Your task to perform on an android device: Go to sound settings Image 0: 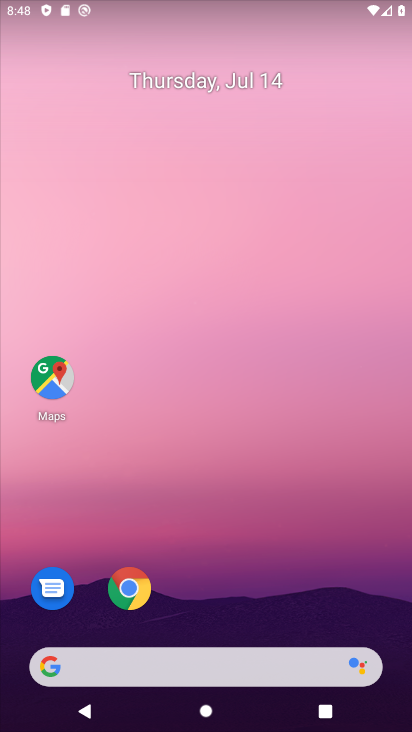
Step 0: drag from (269, 600) to (232, 40)
Your task to perform on an android device: Go to sound settings Image 1: 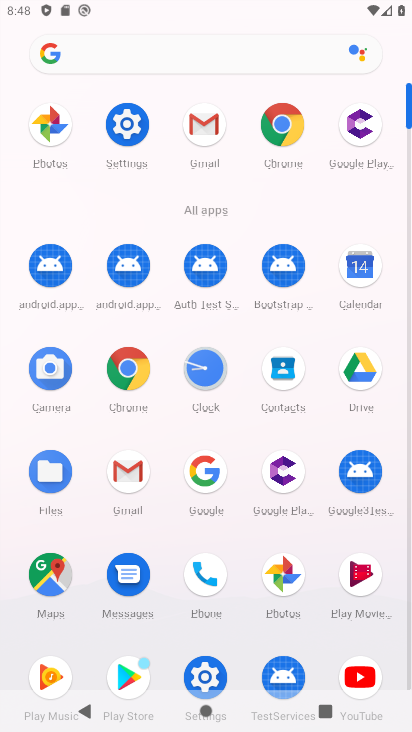
Step 1: click (128, 124)
Your task to perform on an android device: Go to sound settings Image 2: 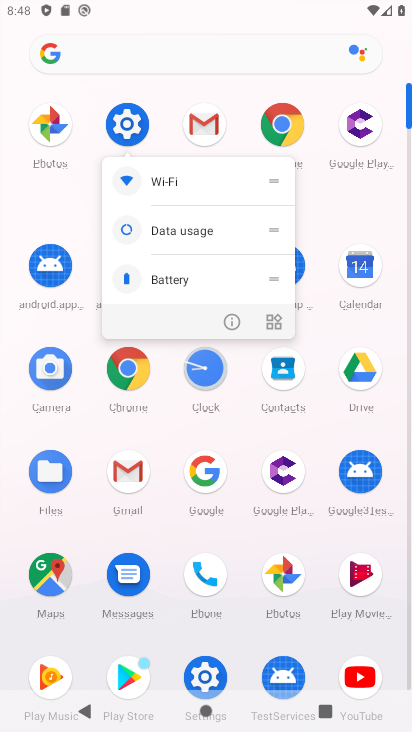
Step 2: click (128, 125)
Your task to perform on an android device: Go to sound settings Image 3: 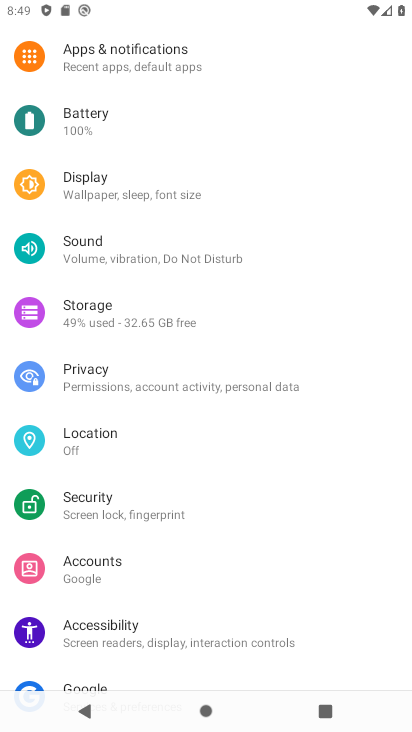
Step 3: click (111, 242)
Your task to perform on an android device: Go to sound settings Image 4: 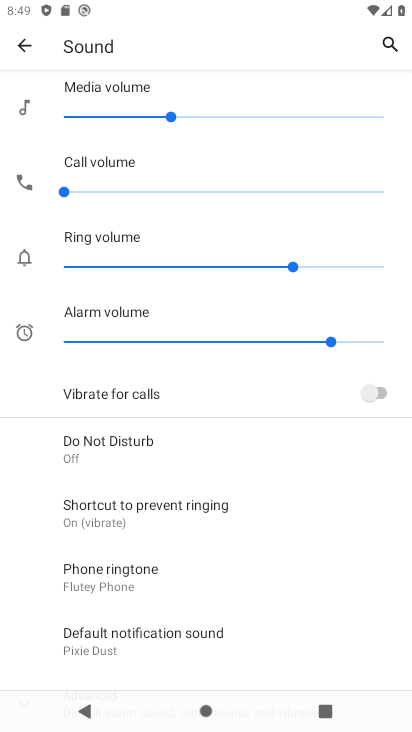
Step 4: task complete